Your task to perform on an android device: What is the recent news? Image 0: 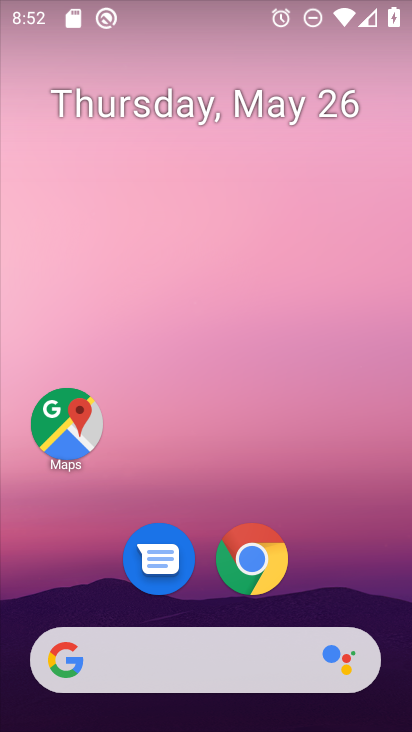
Step 0: drag from (203, 597) to (232, 141)
Your task to perform on an android device: What is the recent news? Image 1: 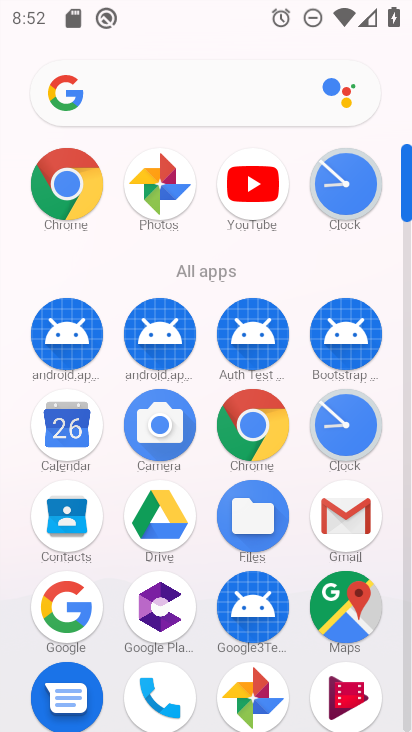
Step 1: click (60, 617)
Your task to perform on an android device: What is the recent news? Image 2: 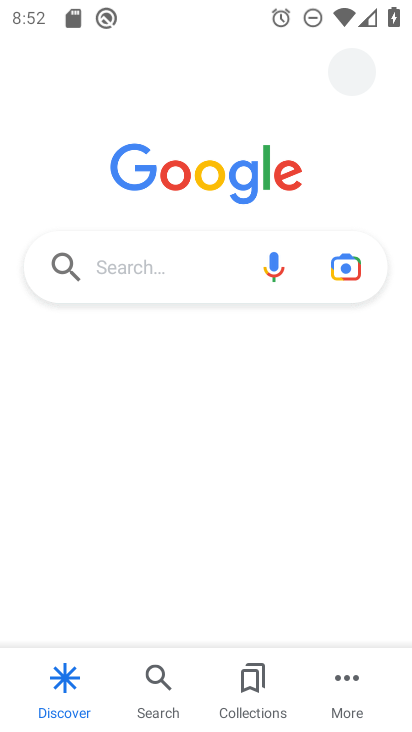
Step 2: click (158, 269)
Your task to perform on an android device: What is the recent news? Image 3: 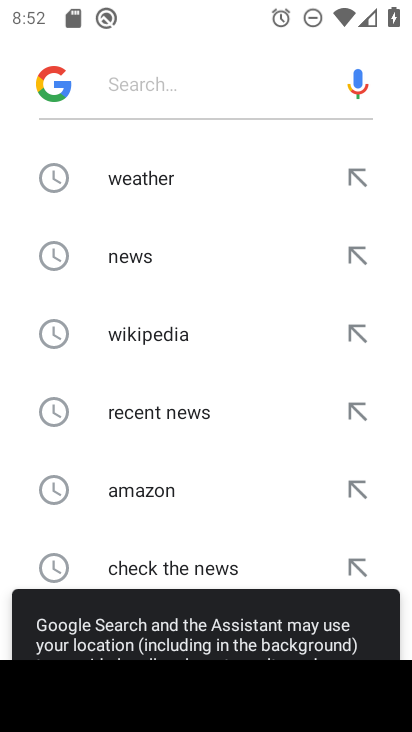
Step 3: click (162, 410)
Your task to perform on an android device: What is the recent news? Image 4: 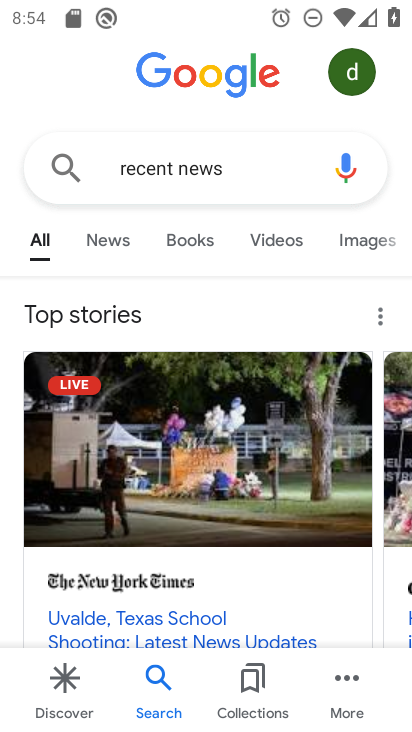
Step 4: task complete